Your task to perform on an android device: Go to notification settings Image 0: 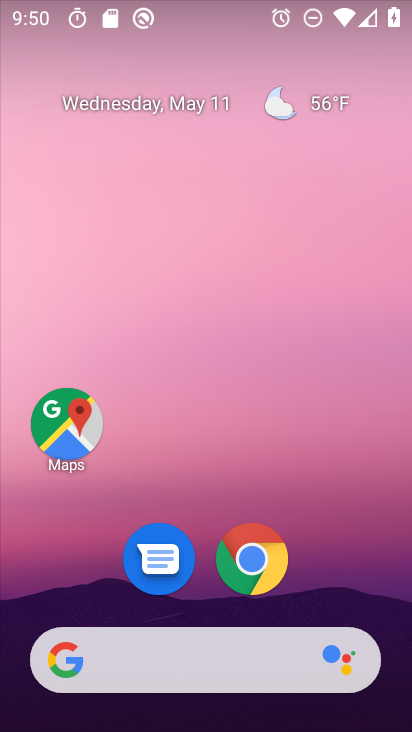
Step 0: click (278, 573)
Your task to perform on an android device: Go to notification settings Image 1: 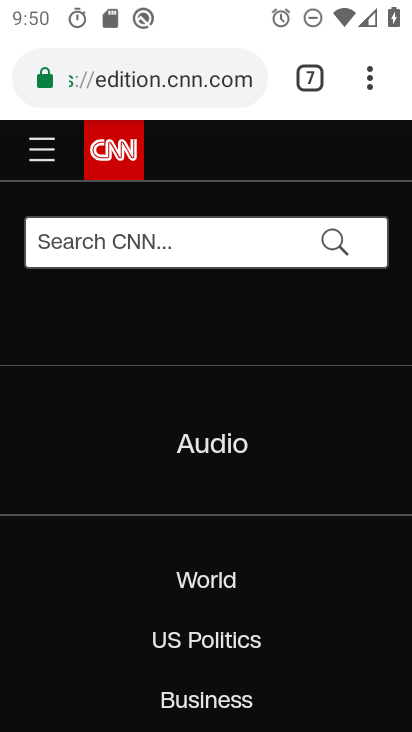
Step 1: click (231, 79)
Your task to perform on an android device: Go to notification settings Image 2: 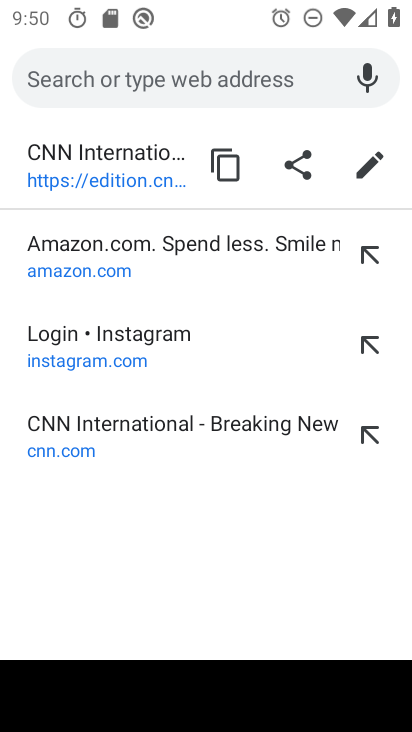
Step 2: click (246, 75)
Your task to perform on an android device: Go to notification settings Image 3: 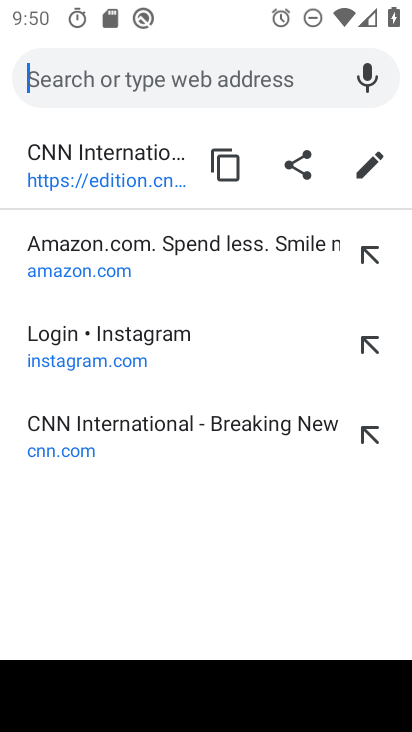
Step 3: press home button
Your task to perform on an android device: Go to notification settings Image 4: 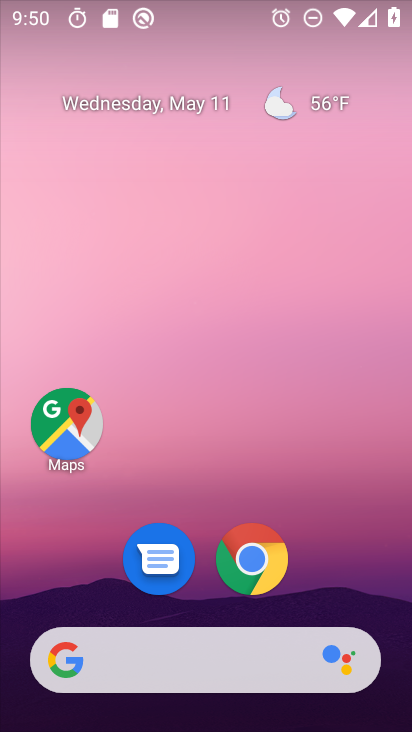
Step 4: drag from (310, 487) to (356, 211)
Your task to perform on an android device: Go to notification settings Image 5: 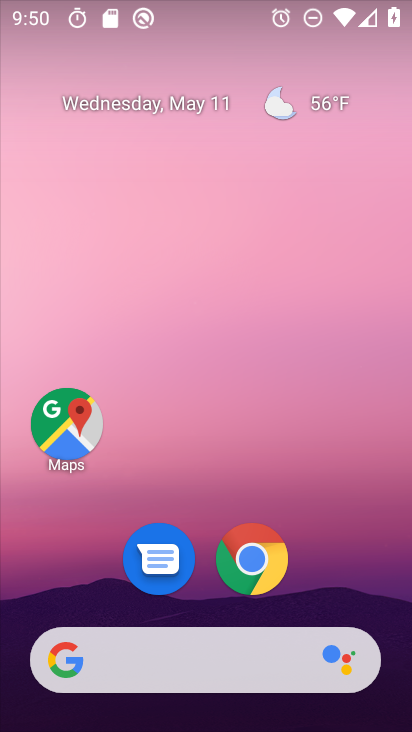
Step 5: drag from (312, 545) to (374, 49)
Your task to perform on an android device: Go to notification settings Image 6: 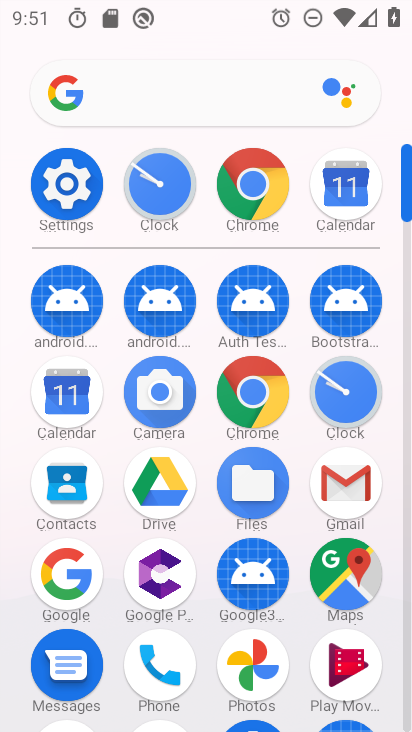
Step 6: click (59, 187)
Your task to perform on an android device: Go to notification settings Image 7: 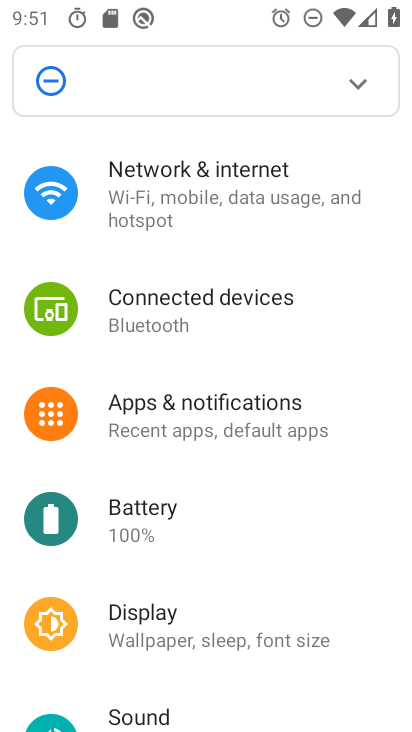
Step 7: click (146, 412)
Your task to perform on an android device: Go to notification settings Image 8: 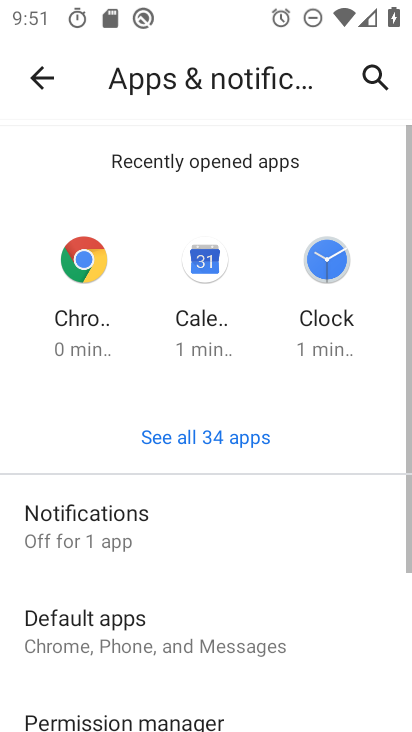
Step 8: task complete